Your task to perform on an android device: check google app version Image 0: 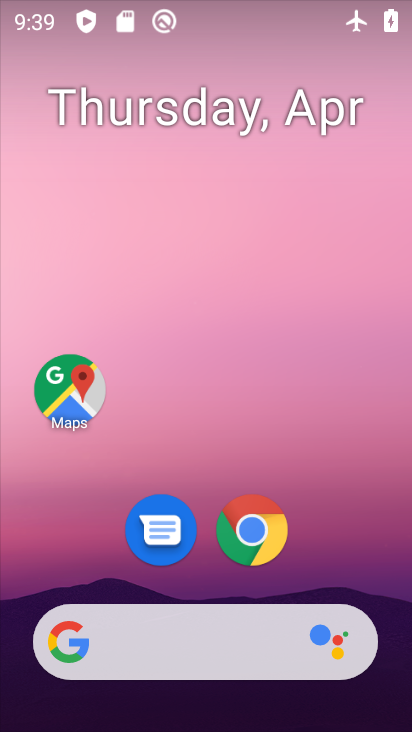
Step 0: drag from (328, 450) to (230, 13)
Your task to perform on an android device: check google app version Image 1: 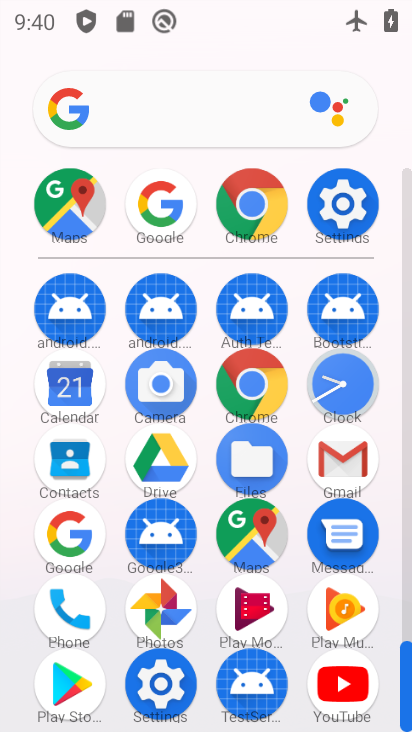
Step 1: click (59, 548)
Your task to perform on an android device: check google app version Image 2: 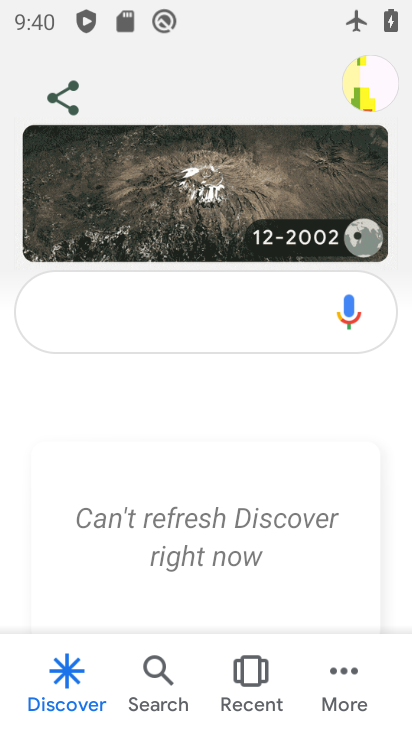
Step 2: click (357, 69)
Your task to perform on an android device: check google app version Image 3: 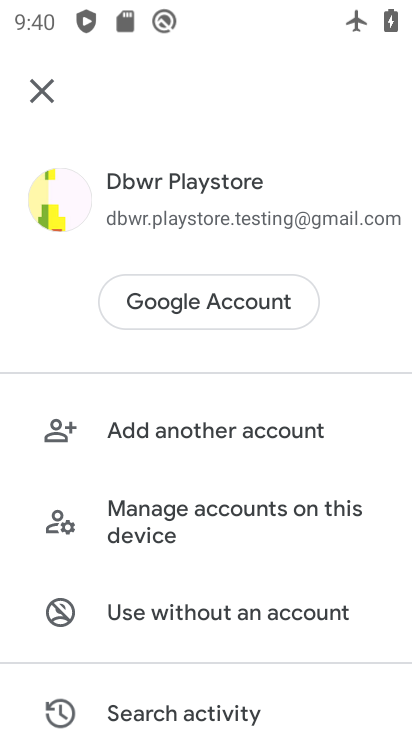
Step 3: drag from (132, 637) to (272, 176)
Your task to perform on an android device: check google app version Image 4: 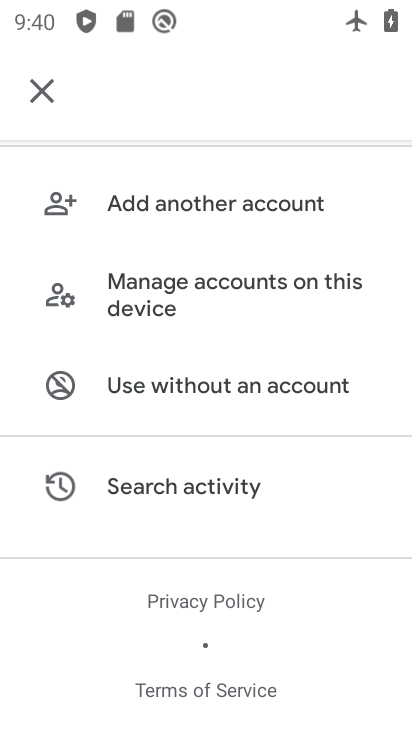
Step 4: drag from (261, 417) to (296, 222)
Your task to perform on an android device: check google app version Image 5: 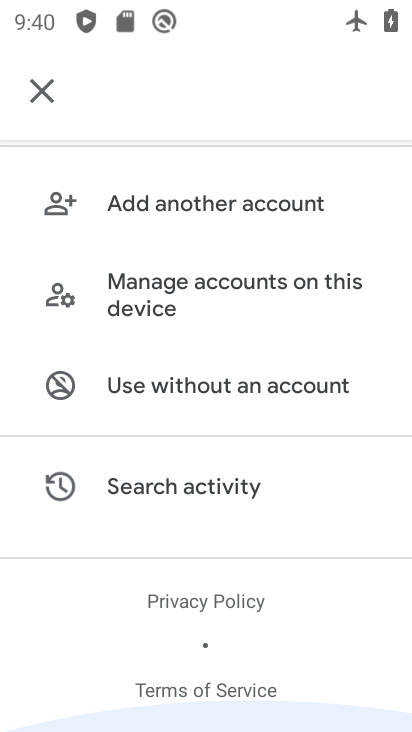
Step 5: drag from (294, 221) to (323, 715)
Your task to perform on an android device: check google app version Image 6: 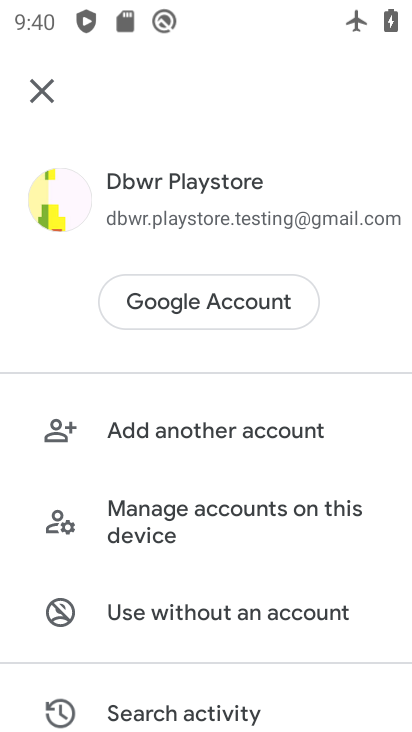
Step 6: click (223, 235)
Your task to perform on an android device: check google app version Image 7: 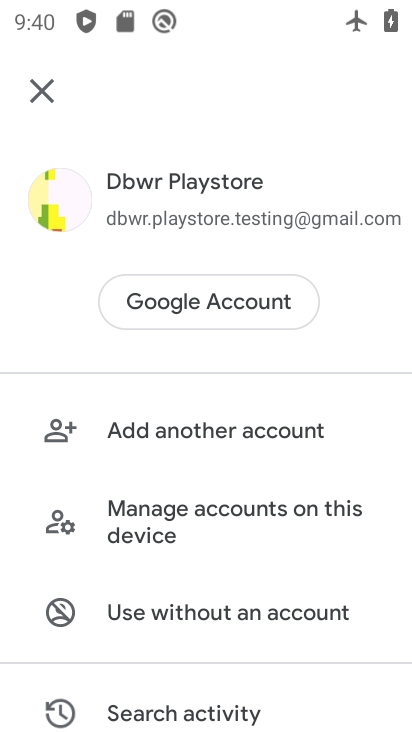
Step 7: click (210, 192)
Your task to perform on an android device: check google app version Image 8: 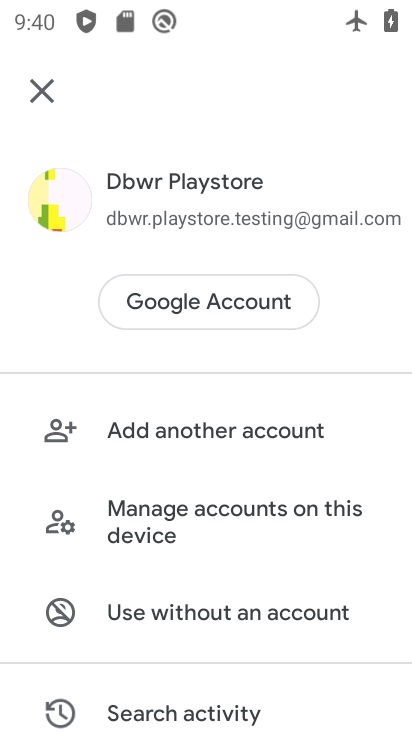
Step 8: press back button
Your task to perform on an android device: check google app version Image 9: 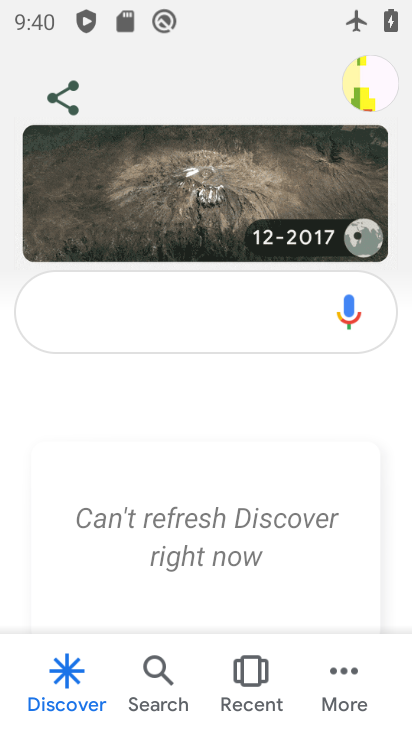
Step 9: click (356, 669)
Your task to perform on an android device: check google app version Image 10: 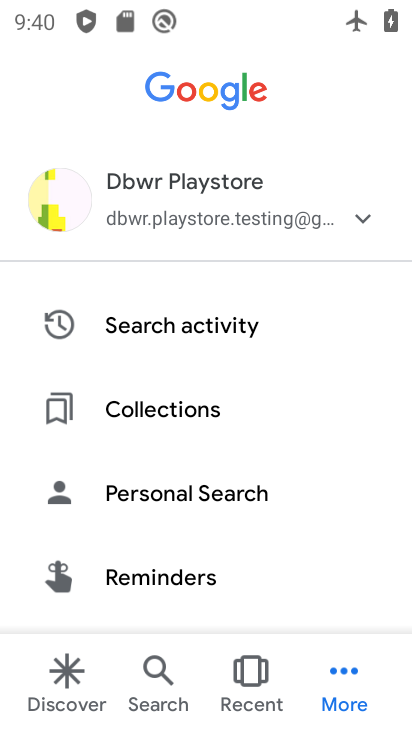
Step 10: drag from (246, 582) to (317, 188)
Your task to perform on an android device: check google app version Image 11: 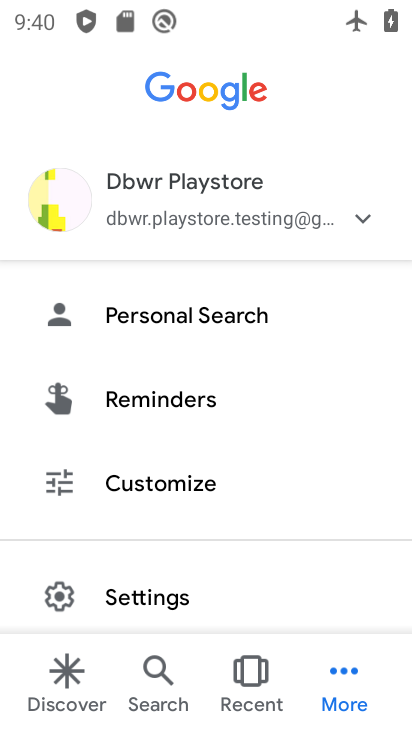
Step 11: click (173, 598)
Your task to perform on an android device: check google app version Image 12: 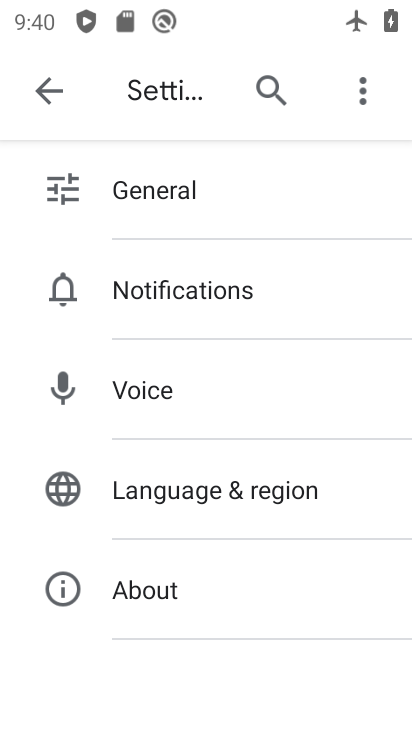
Step 12: click (187, 585)
Your task to perform on an android device: check google app version Image 13: 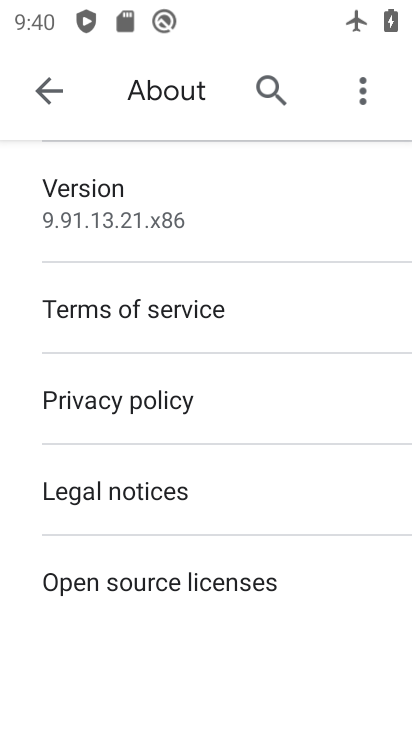
Step 13: click (171, 214)
Your task to perform on an android device: check google app version Image 14: 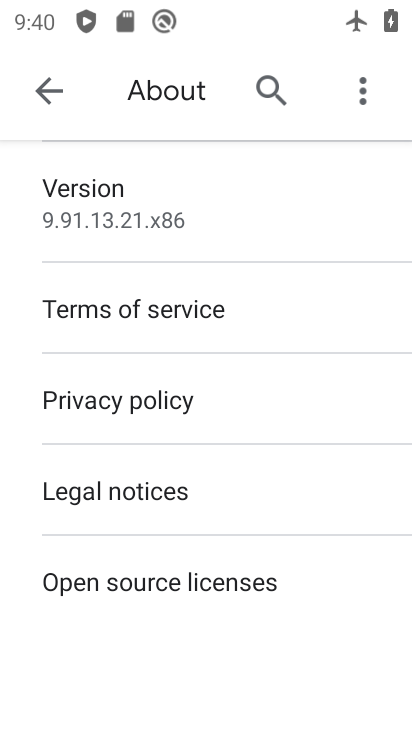
Step 14: task complete